Your task to perform on an android device: open sync settings in chrome Image 0: 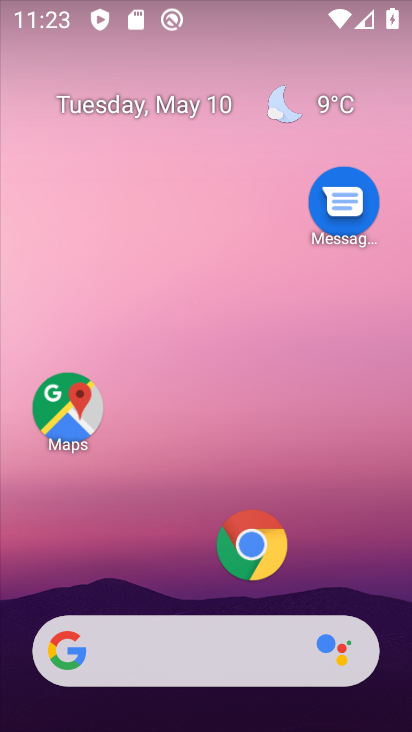
Step 0: click (264, 554)
Your task to perform on an android device: open sync settings in chrome Image 1: 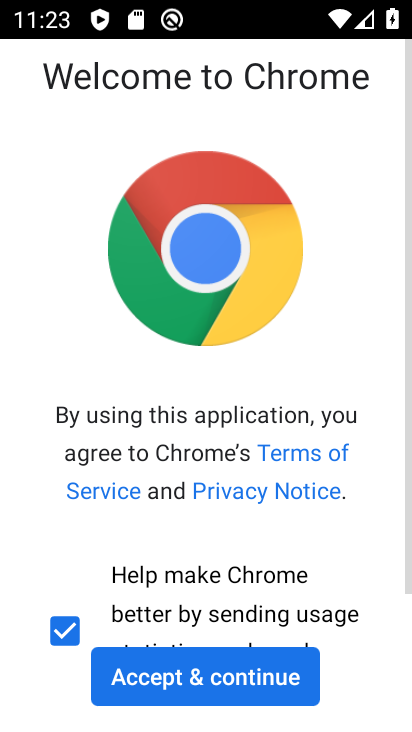
Step 1: click (229, 691)
Your task to perform on an android device: open sync settings in chrome Image 2: 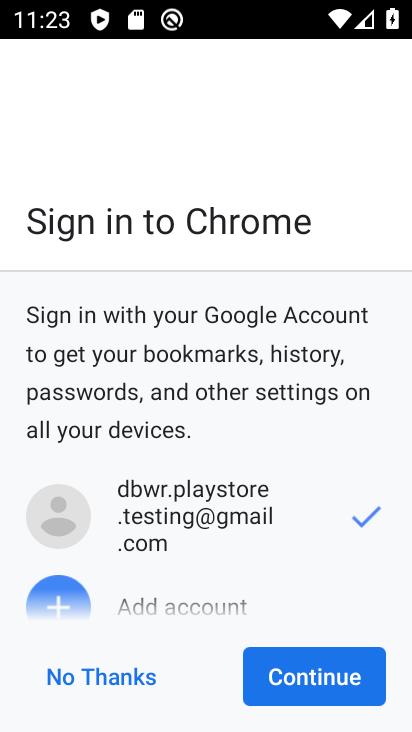
Step 2: click (310, 689)
Your task to perform on an android device: open sync settings in chrome Image 3: 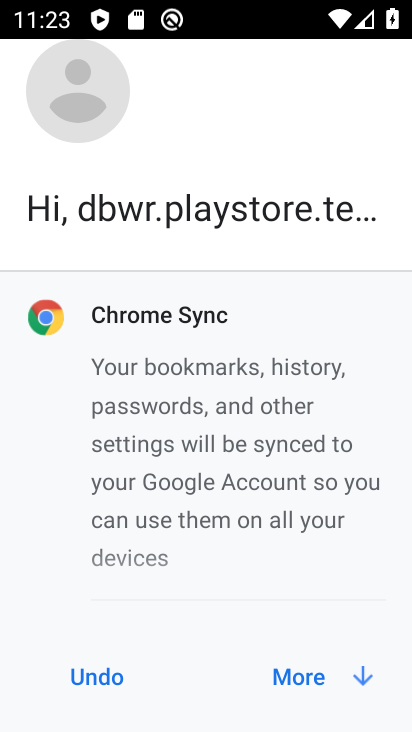
Step 3: click (311, 689)
Your task to perform on an android device: open sync settings in chrome Image 4: 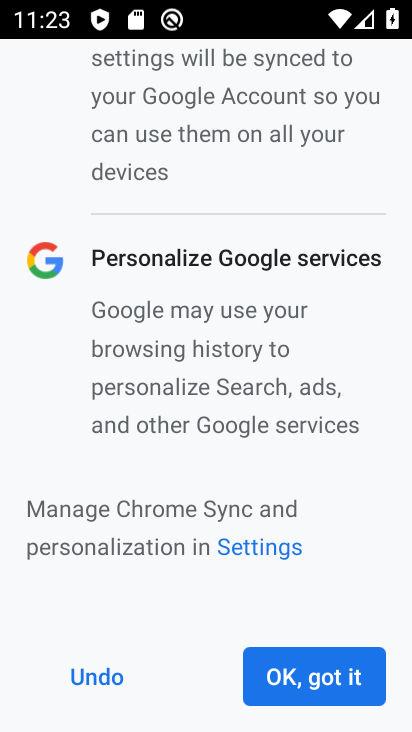
Step 4: click (310, 688)
Your task to perform on an android device: open sync settings in chrome Image 5: 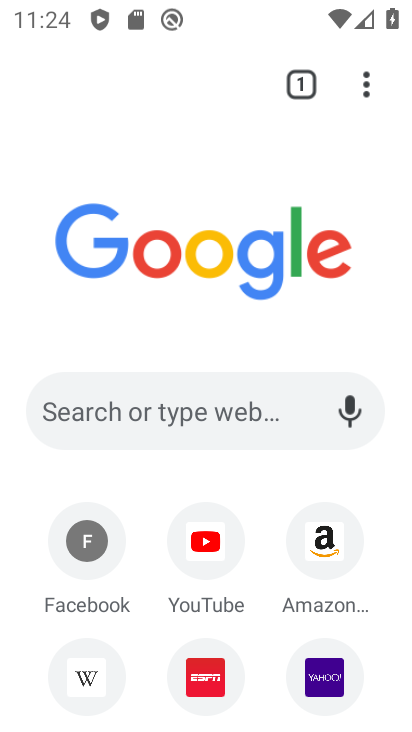
Step 5: drag from (365, 77) to (220, 606)
Your task to perform on an android device: open sync settings in chrome Image 6: 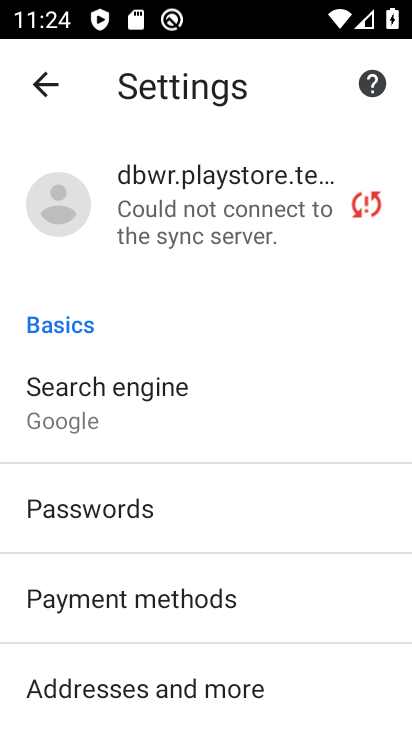
Step 6: drag from (214, 597) to (247, 455)
Your task to perform on an android device: open sync settings in chrome Image 7: 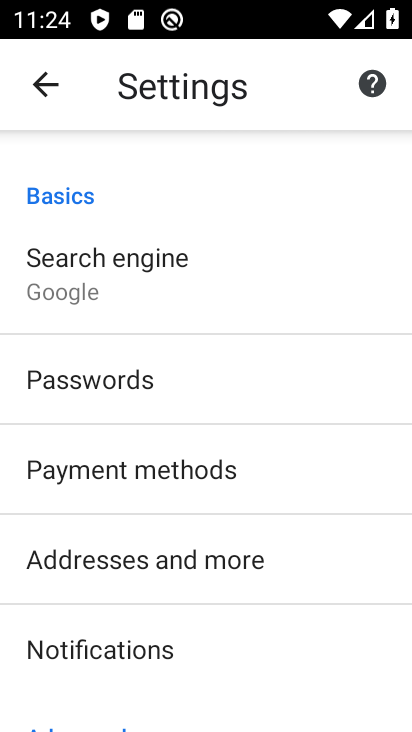
Step 7: drag from (199, 334) to (201, 577)
Your task to perform on an android device: open sync settings in chrome Image 8: 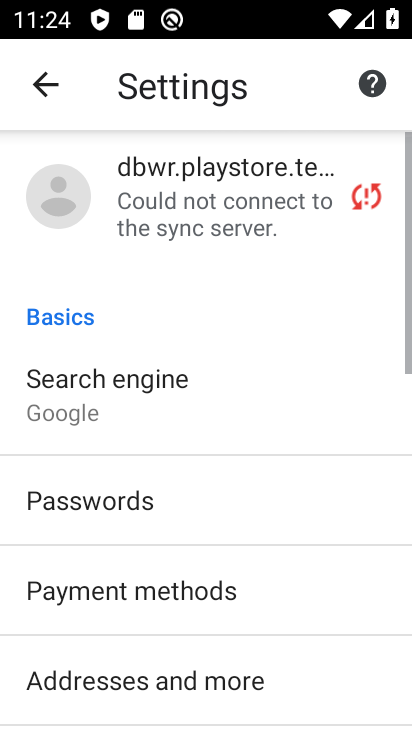
Step 8: click (271, 202)
Your task to perform on an android device: open sync settings in chrome Image 9: 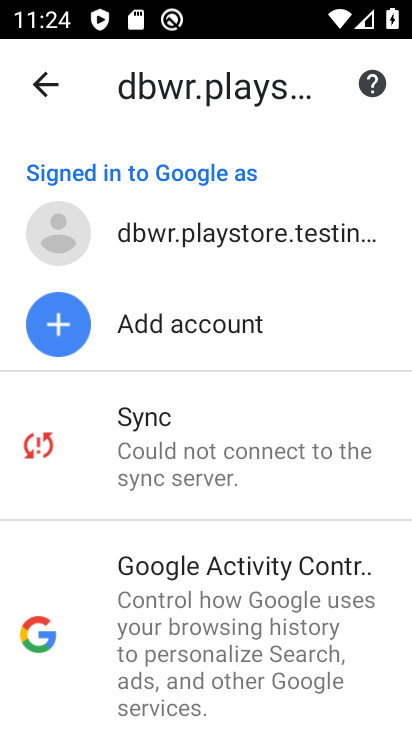
Step 9: drag from (259, 608) to (315, 283)
Your task to perform on an android device: open sync settings in chrome Image 10: 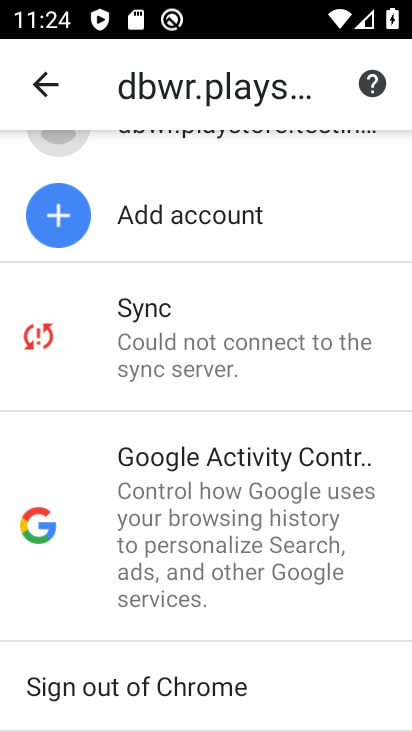
Step 10: click (281, 352)
Your task to perform on an android device: open sync settings in chrome Image 11: 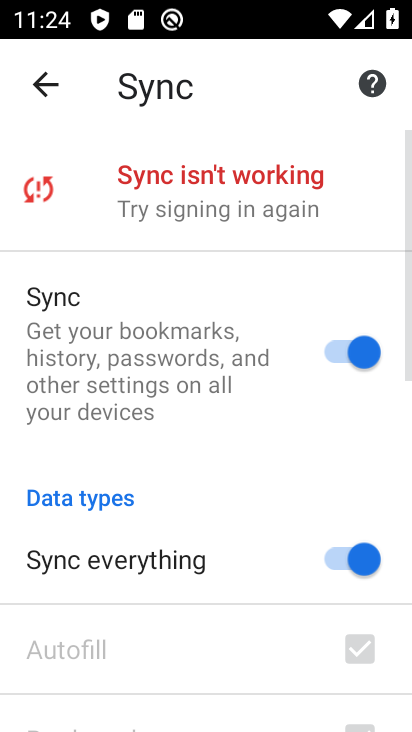
Step 11: task complete